Your task to perform on an android device: turn on airplane mode Image 0: 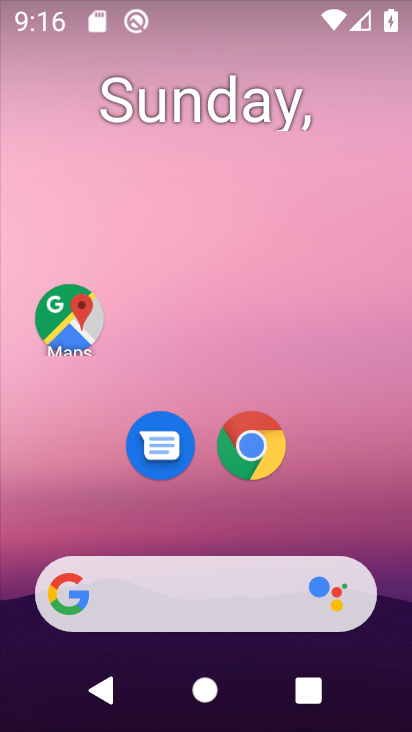
Step 0: drag from (351, 510) to (260, 1)
Your task to perform on an android device: turn on airplane mode Image 1: 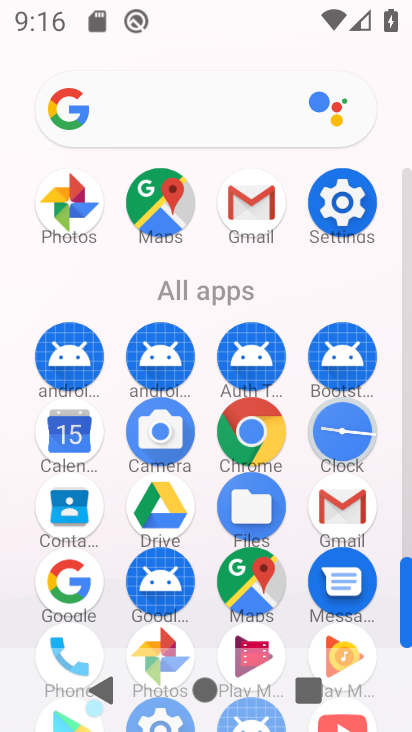
Step 1: click (342, 198)
Your task to perform on an android device: turn on airplane mode Image 2: 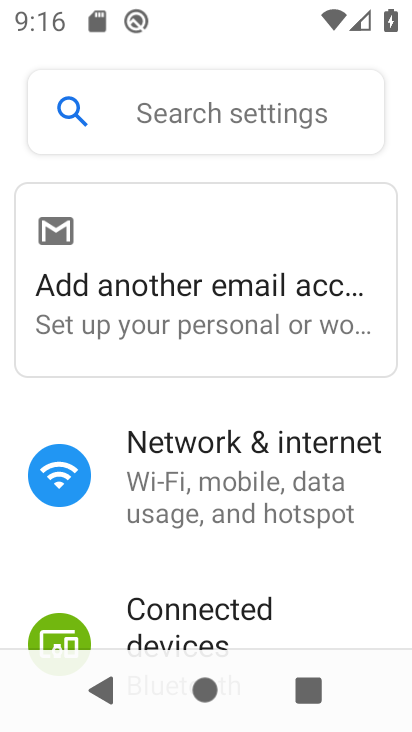
Step 2: click (259, 462)
Your task to perform on an android device: turn on airplane mode Image 3: 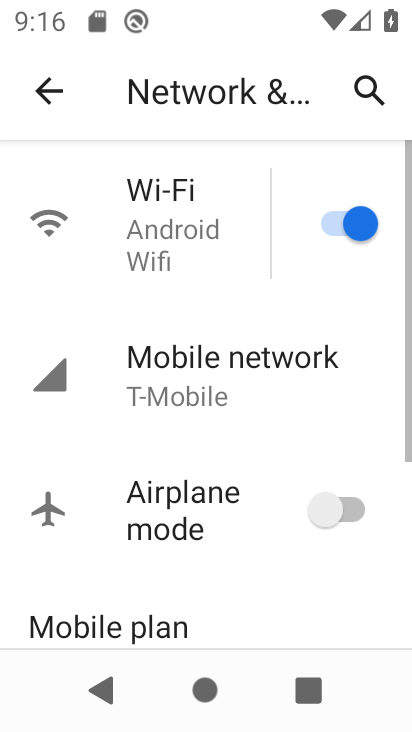
Step 3: drag from (189, 550) to (166, 248)
Your task to perform on an android device: turn on airplane mode Image 4: 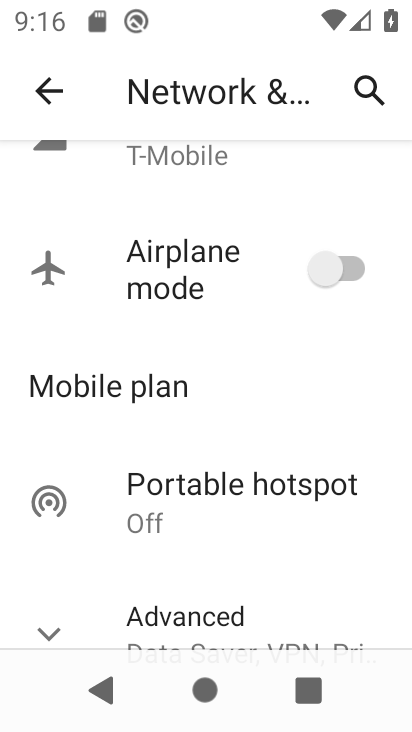
Step 4: click (330, 271)
Your task to perform on an android device: turn on airplane mode Image 5: 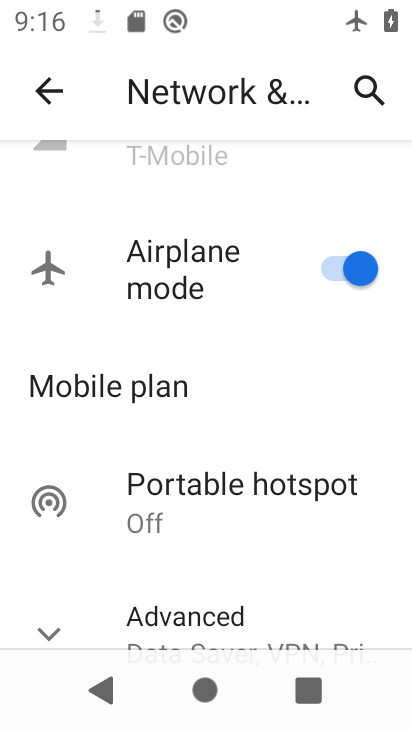
Step 5: task complete